Your task to perform on an android device: Open the Play Movies app and select the watchlist tab. Image 0: 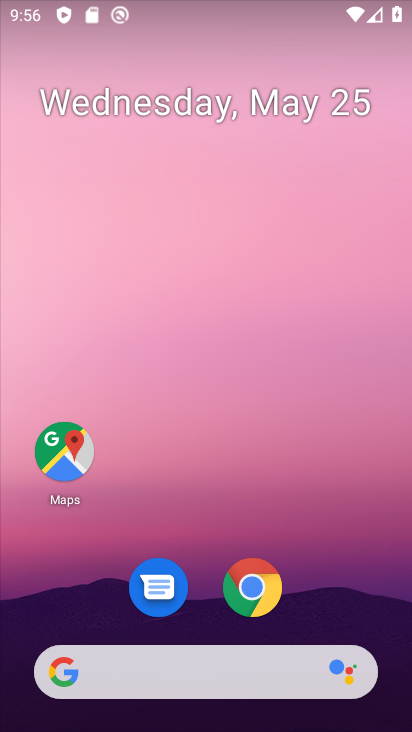
Step 0: drag from (214, 612) to (252, 1)
Your task to perform on an android device: Open the Play Movies app and select the watchlist tab. Image 1: 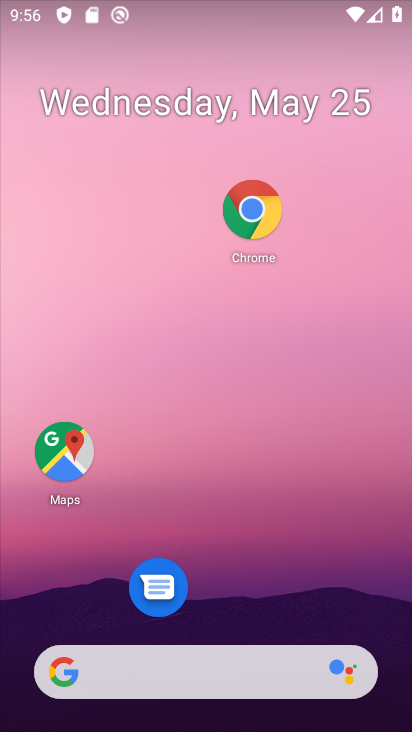
Step 1: drag from (270, 589) to (306, 1)
Your task to perform on an android device: Open the Play Movies app and select the watchlist tab. Image 2: 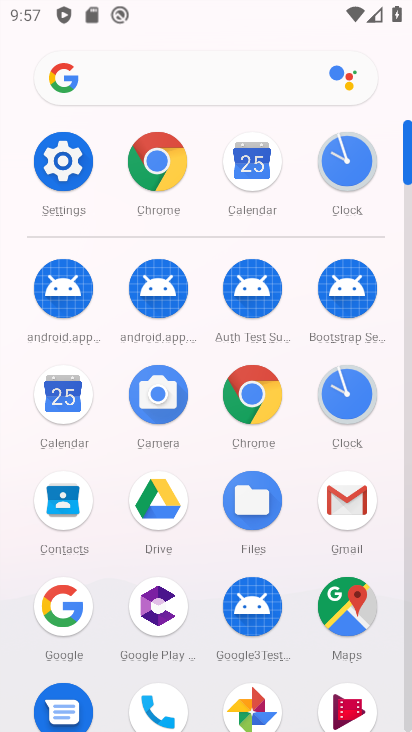
Step 2: drag from (299, 565) to (300, 233)
Your task to perform on an android device: Open the Play Movies app and select the watchlist tab. Image 3: 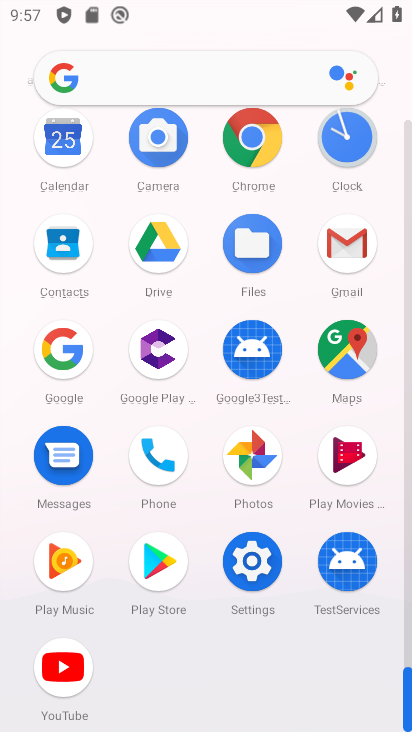
Step 3: click (359, 469)
Your task to perform on an android device: Open the Play Movies app and select the watchlist tab. Image 4: 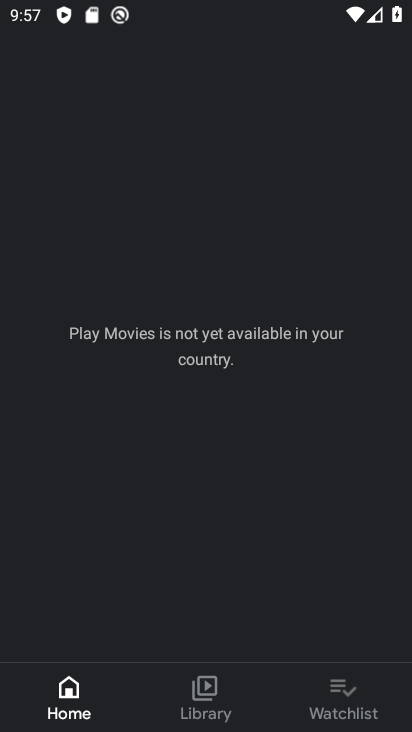
Step 4: click (324, 700)
Your task to perform on an android device: Open the Play Movies app and select the watchlist tab. Image 5: 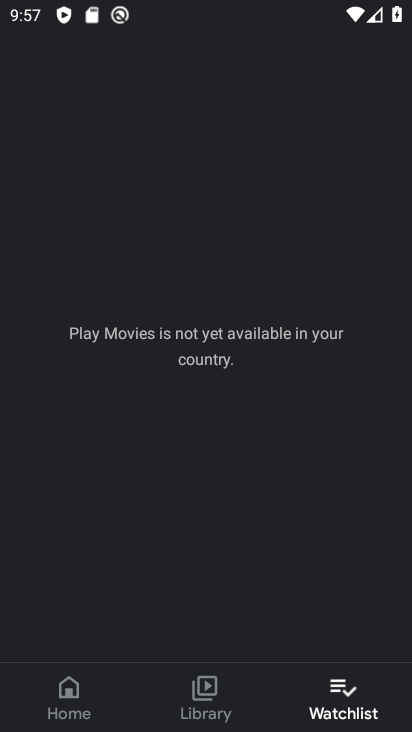
Step 5: task complete